Your task to perform on an android device: Search for 'The Girl on the Train' on Goodreads. Image 0: 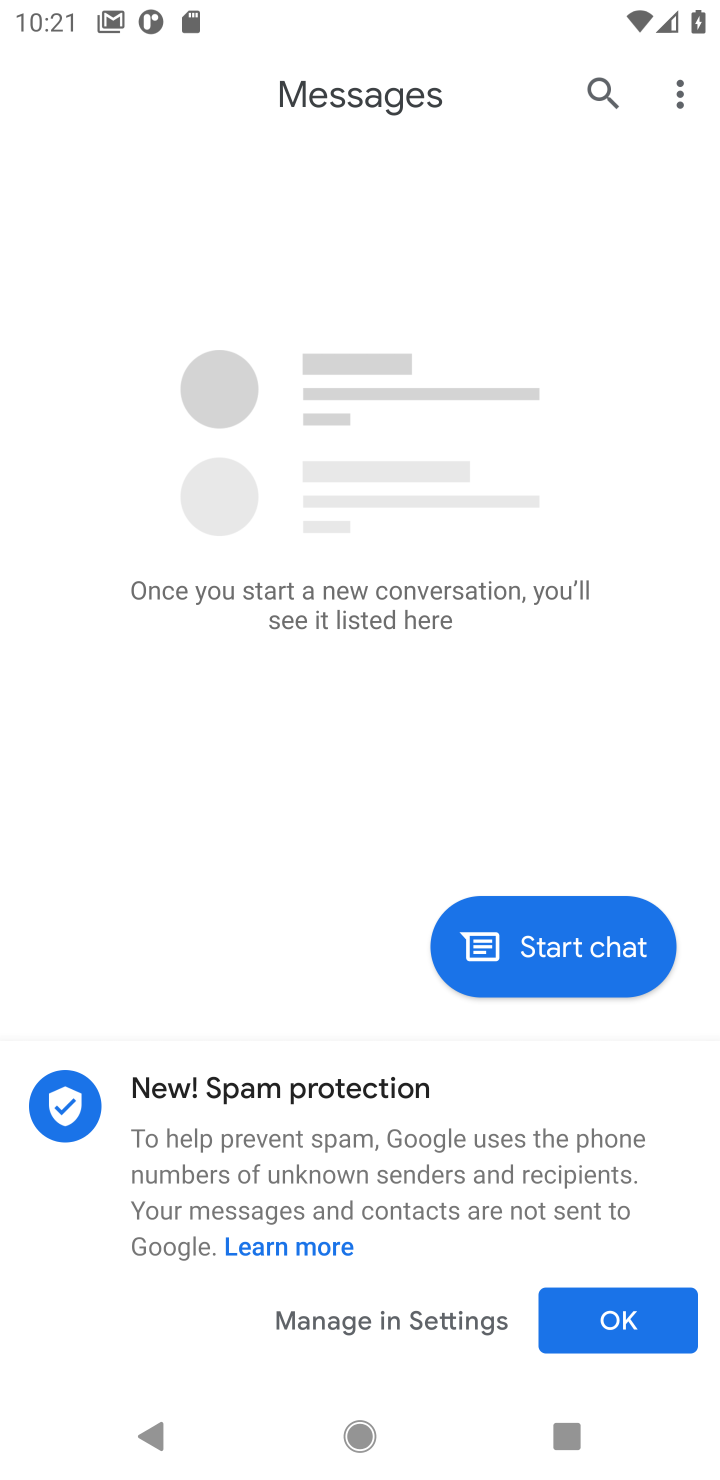
Step 0: press home button
Your task to perform on an android device: Search for 'The Girl on the Train' on Goodreads. Image 1: 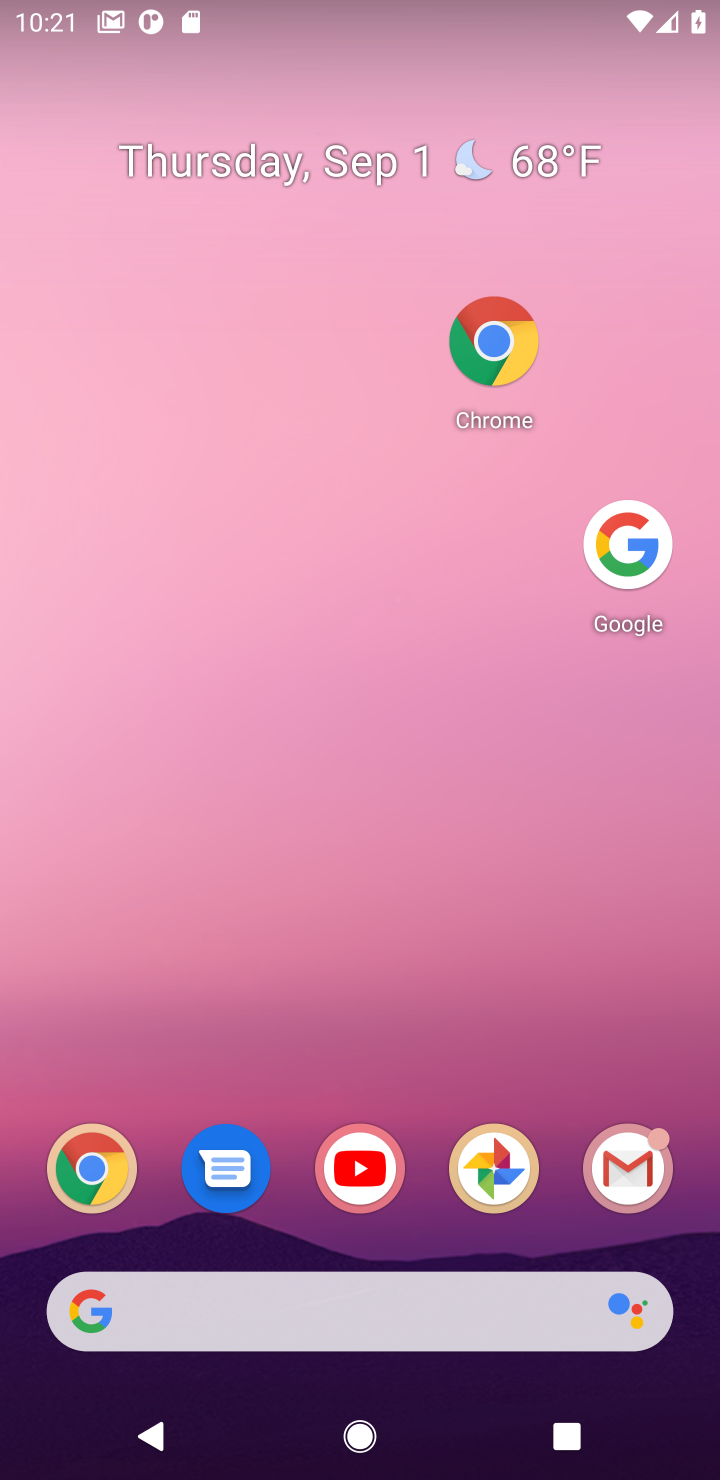
Step 1: drag from (359, 1129) to (394, 110)
Your task to perform on an android device: Search for 'The Girl on the Train' on Goodreads. Image 2: 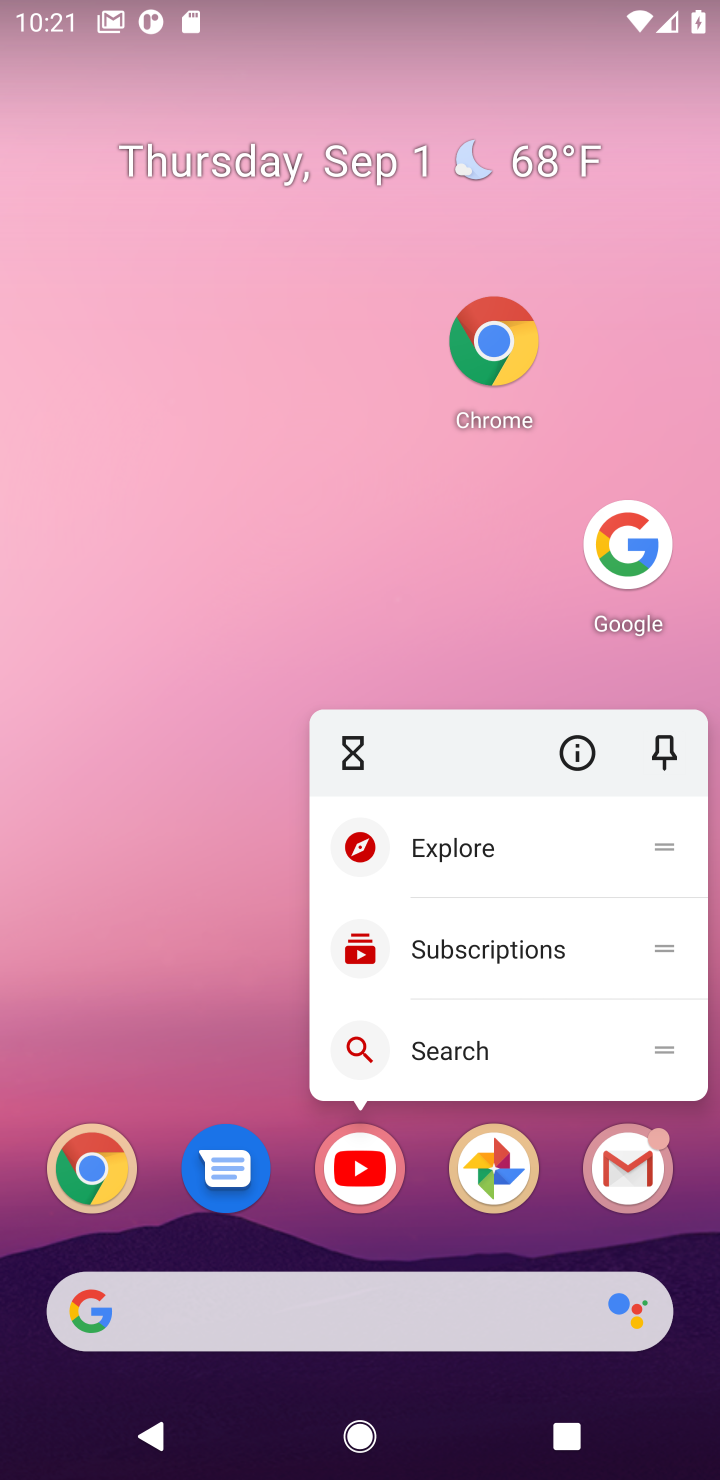
Step 2: click (216, 643)
Your task to perform on an android device: Search for 'The Girl on the Train' on Goodreads. Image 3: 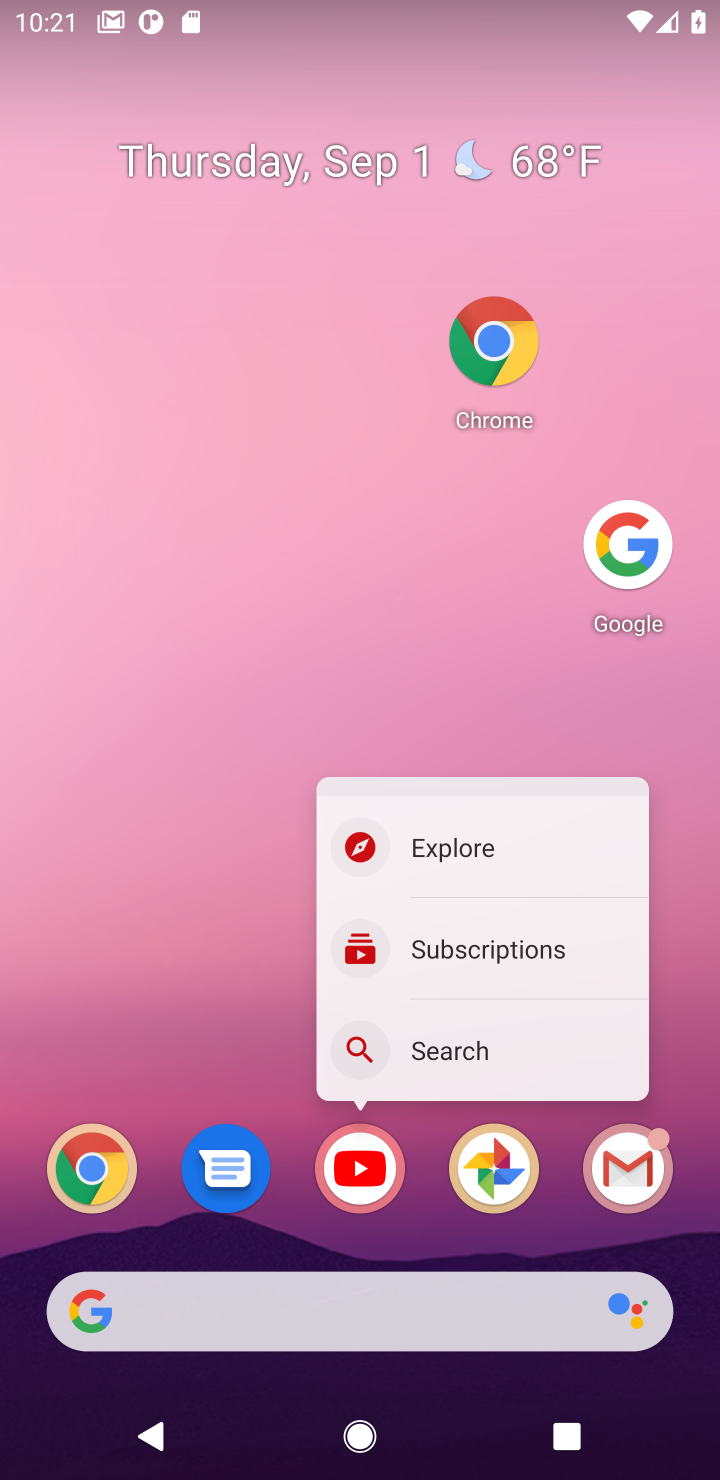
Step 3: click (620, 530)
Your task to perform on an android device: Search for 'The Girl on the Train' on Goodreads. Image 4: 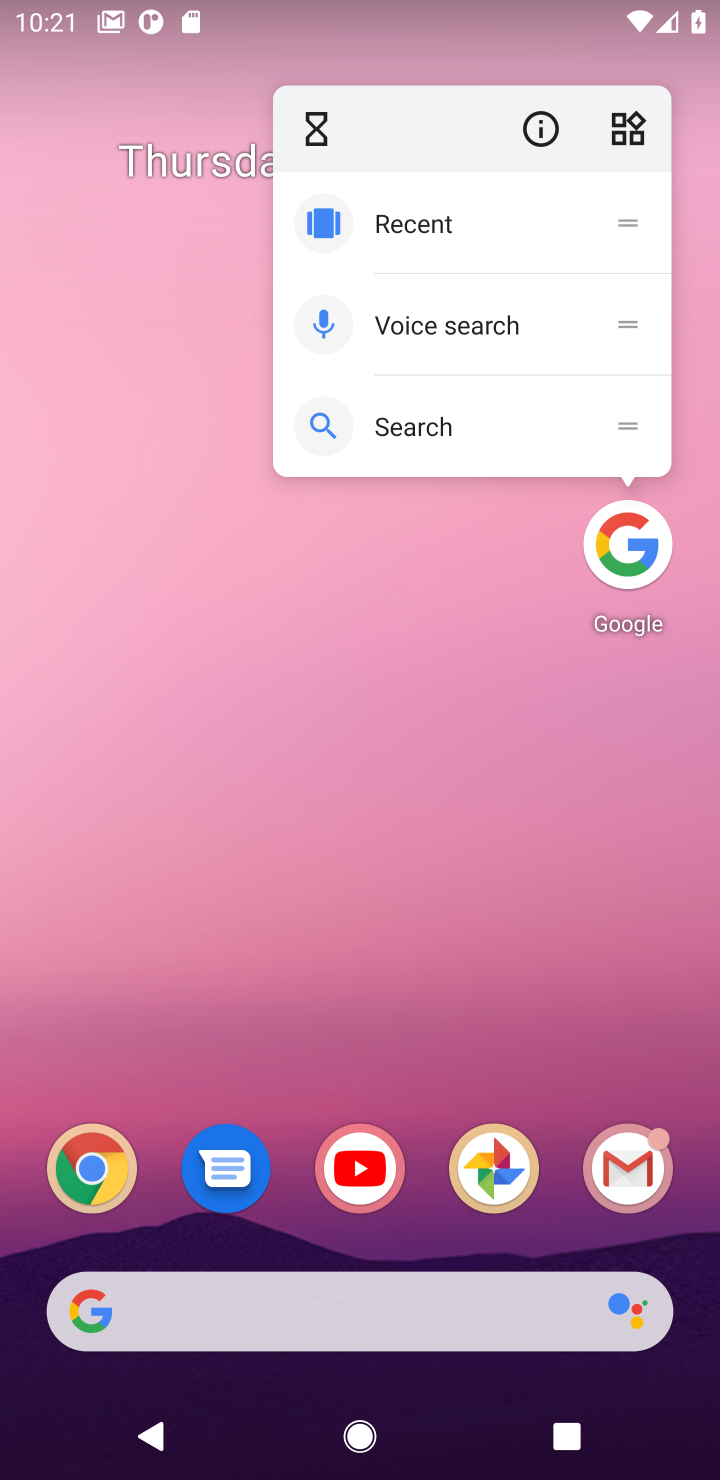
Step 4: click (629, 528)
Your task to perform on an android device: Search for 'The Girl on the Train' on Goodreads. Image 5: 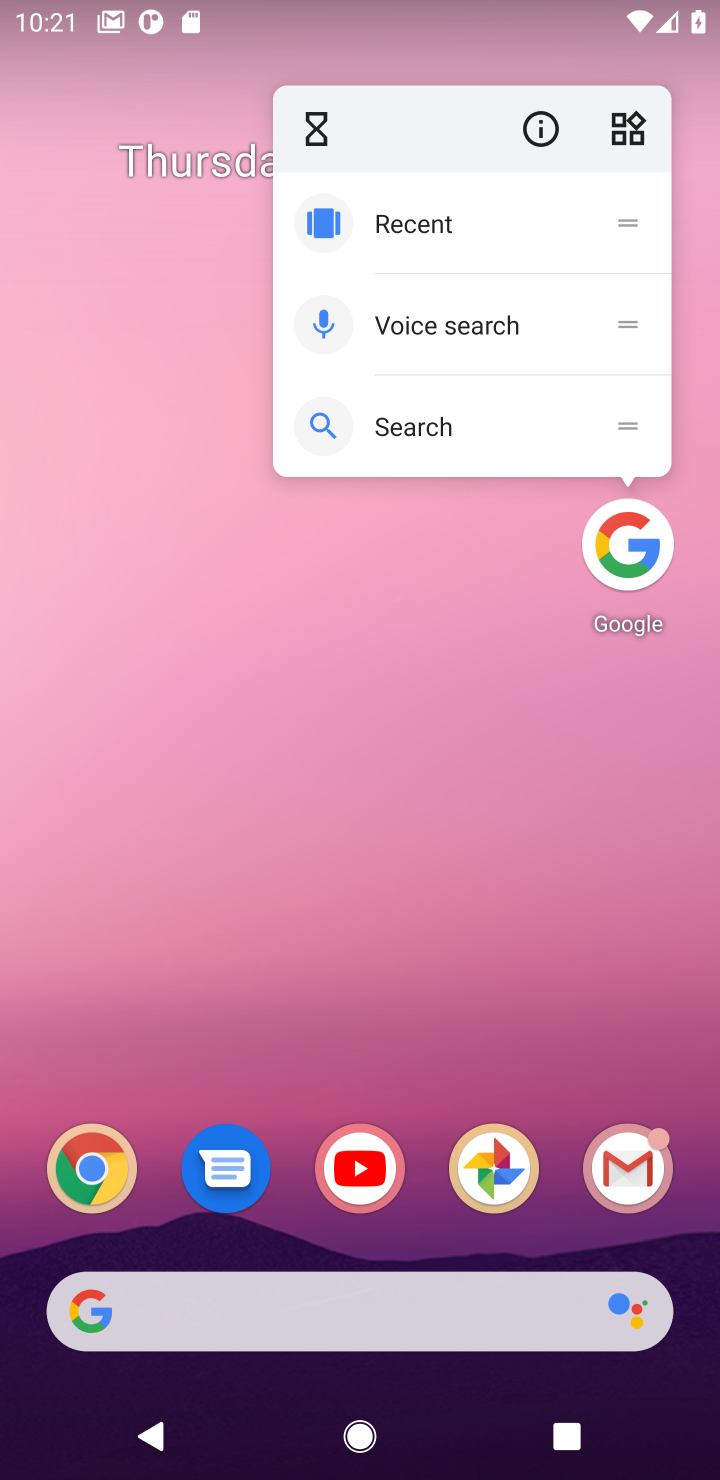
Step 5: click (629, 535)
Your task to perform on an android device: Search for 'The Girl on the Train' on Goodreads. Image 6: 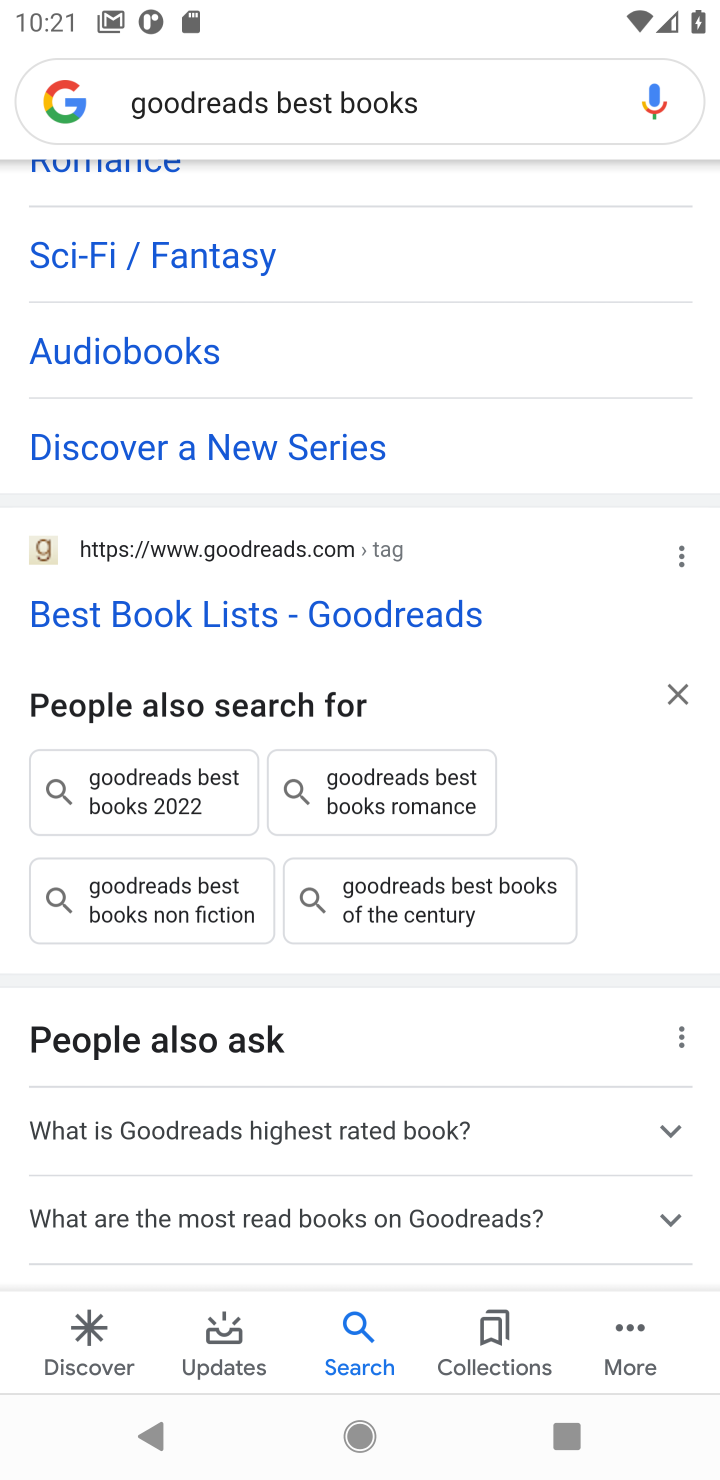
Step 6: click (431, 98)
Your task to perform on an android device: Search for 'The Girl on the Train' on Goodreads. Image 7: 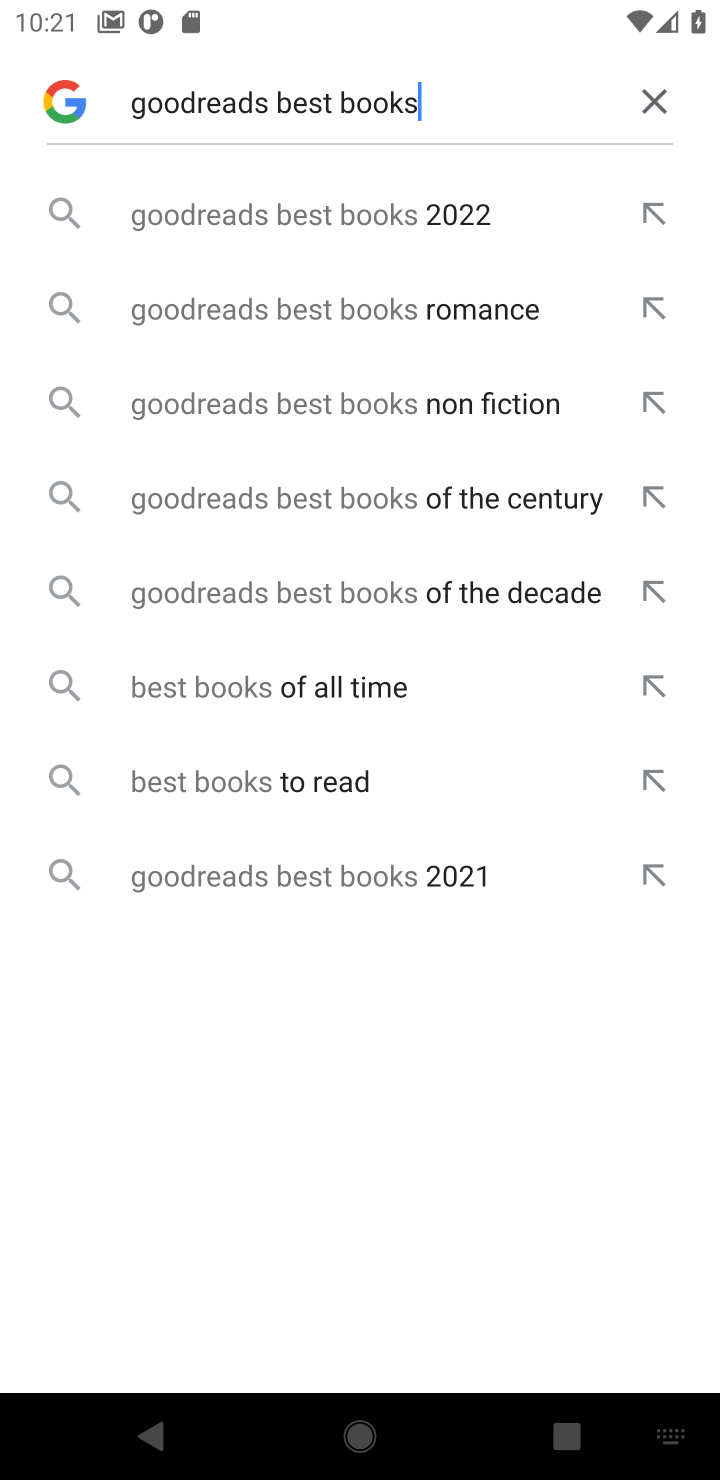
Step 7: drag from (283, 96) to (409, 111)
Your task to perform on an android device: Search for 'The Girl on the Train' on Goodreads. Image 8: 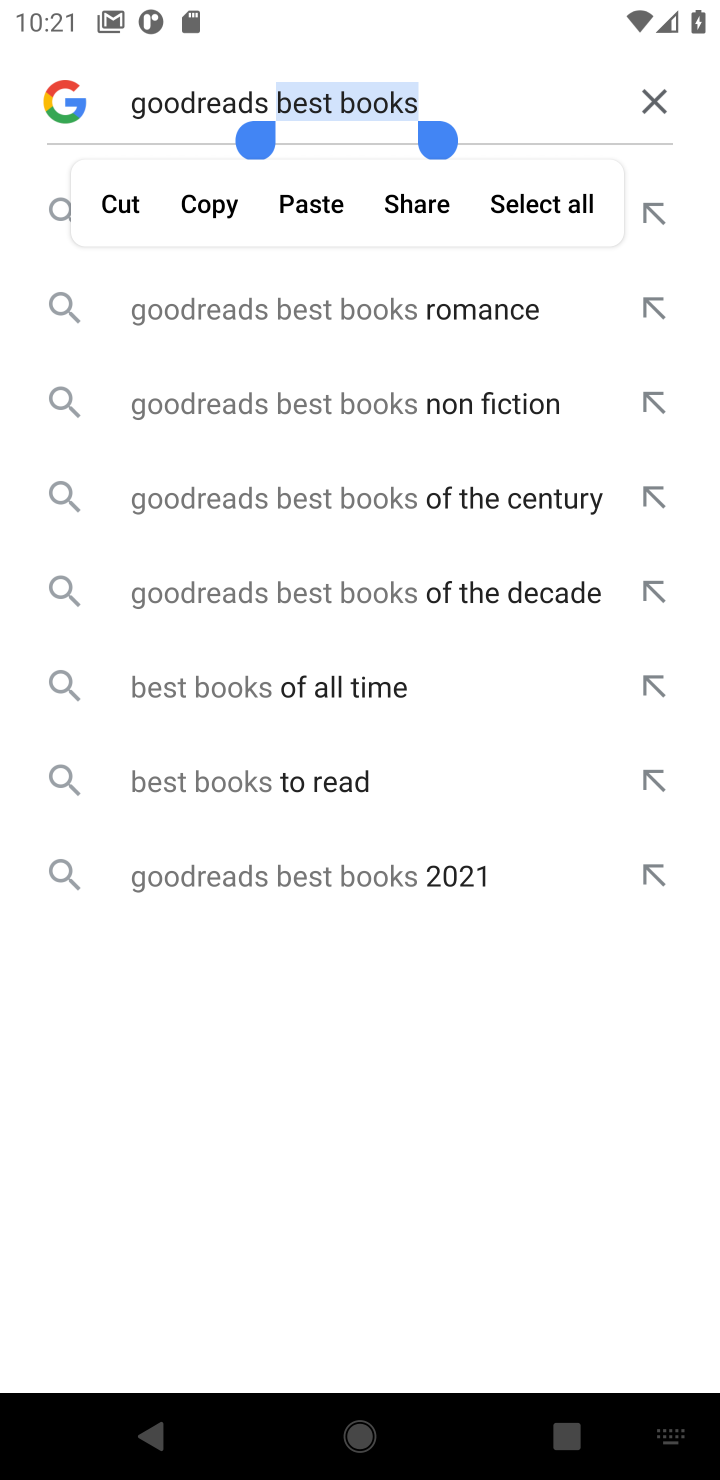
Step 8: click (125, 193)
Your task to perform on an android device: Search for 'The Girl on the Train' on Goodreads. Image 9: 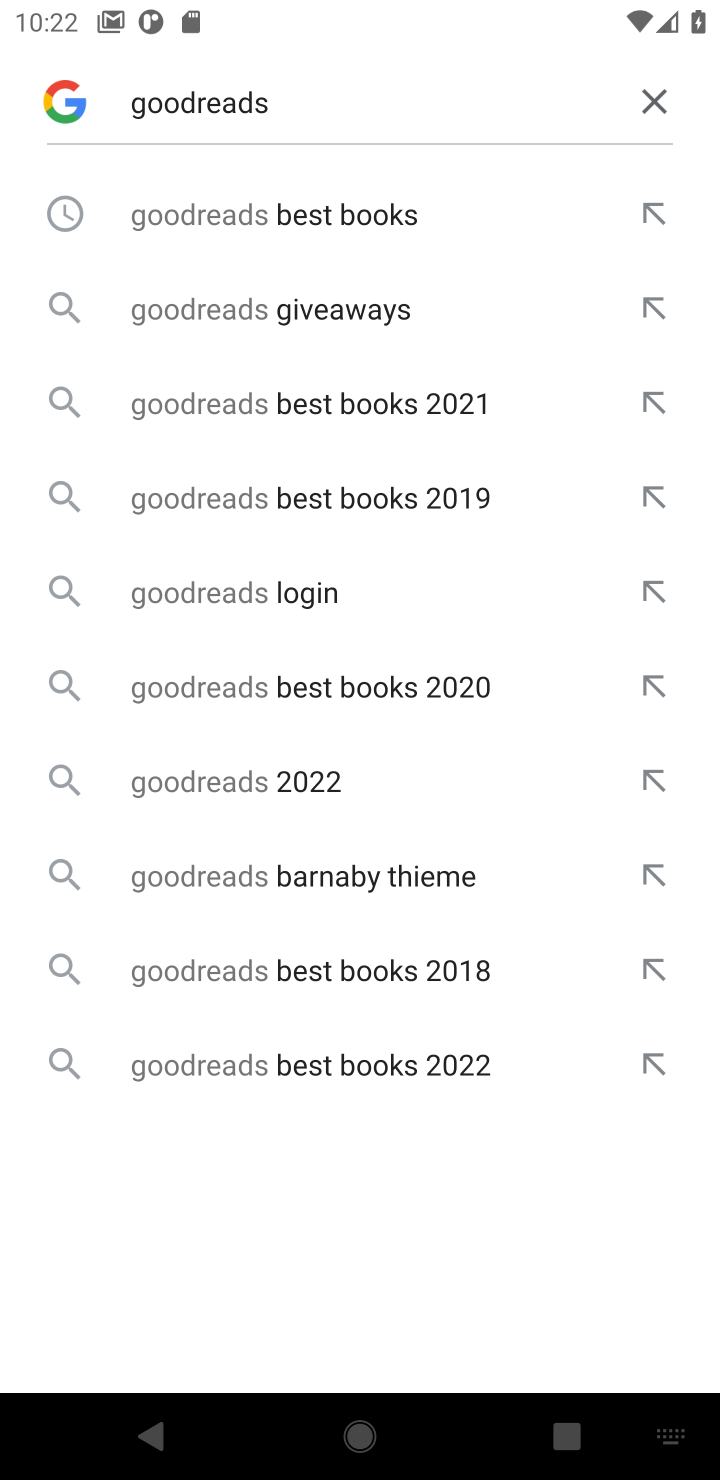
Step 9: click (194, 98)
Your task to perform on an android device: Search for 'The Girl on the Train' on Goodreads. Image 10: 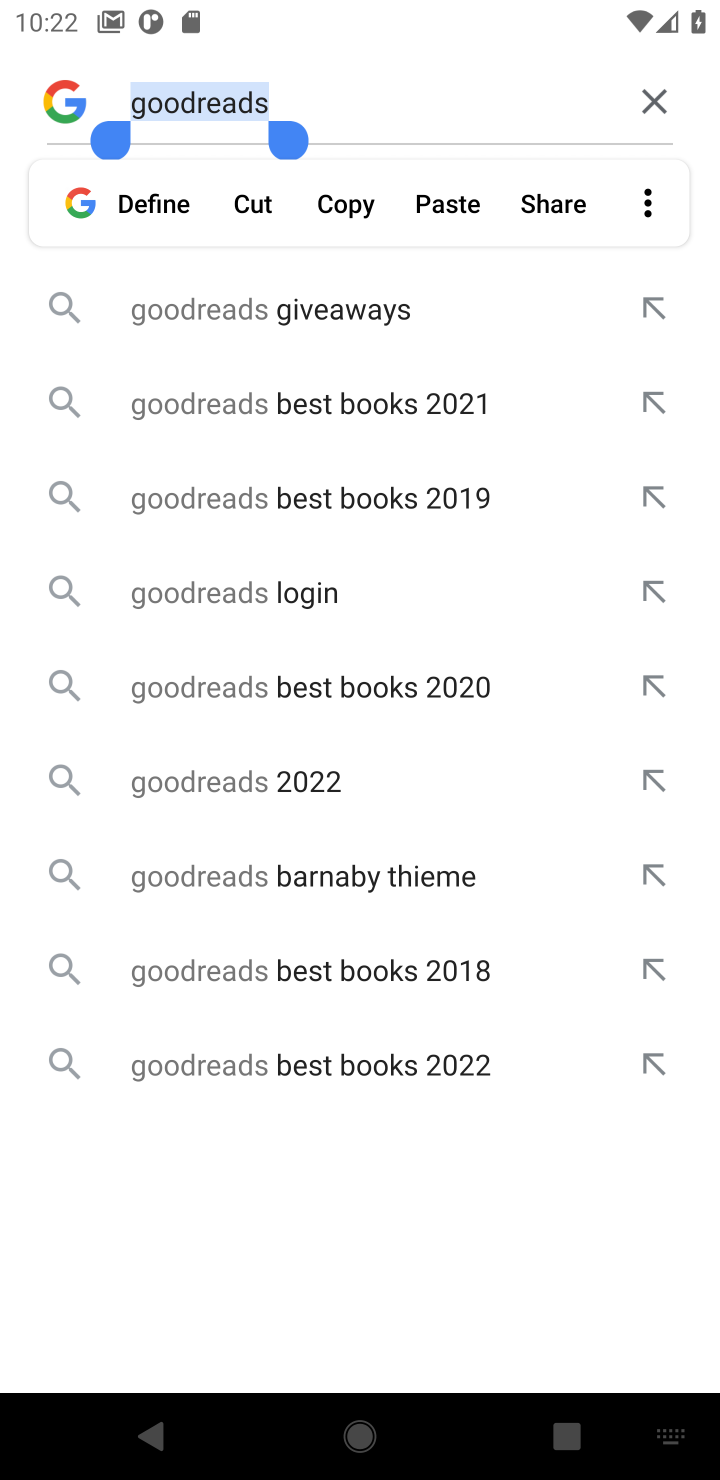
Step 10: click (239, 320)
Your task to perform on an android device: Search for 'The Girl on the Train' on Goodreads. Image 11: 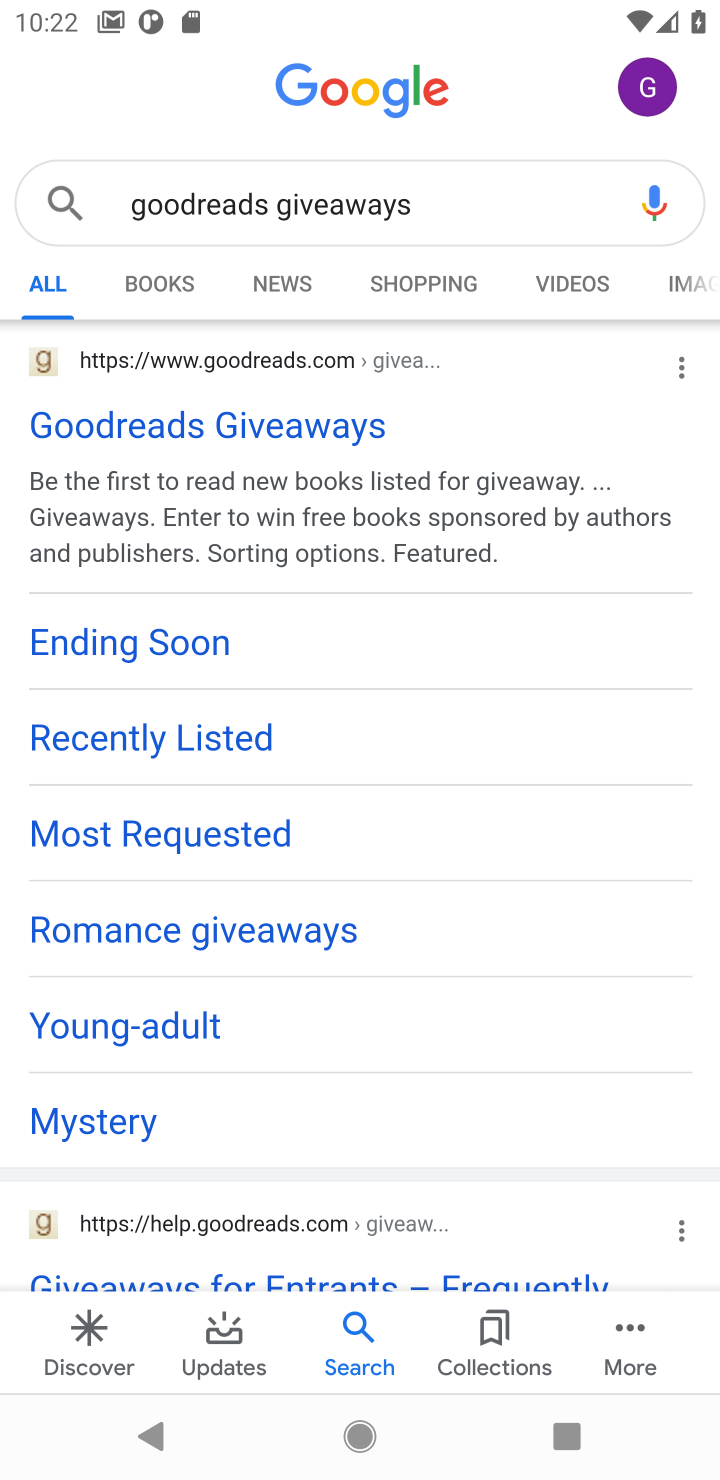
Step 11: click (252, 424)
Your task to perform on an android device: Search for 'The Girl on the Train' on Goodreads. Image 12: 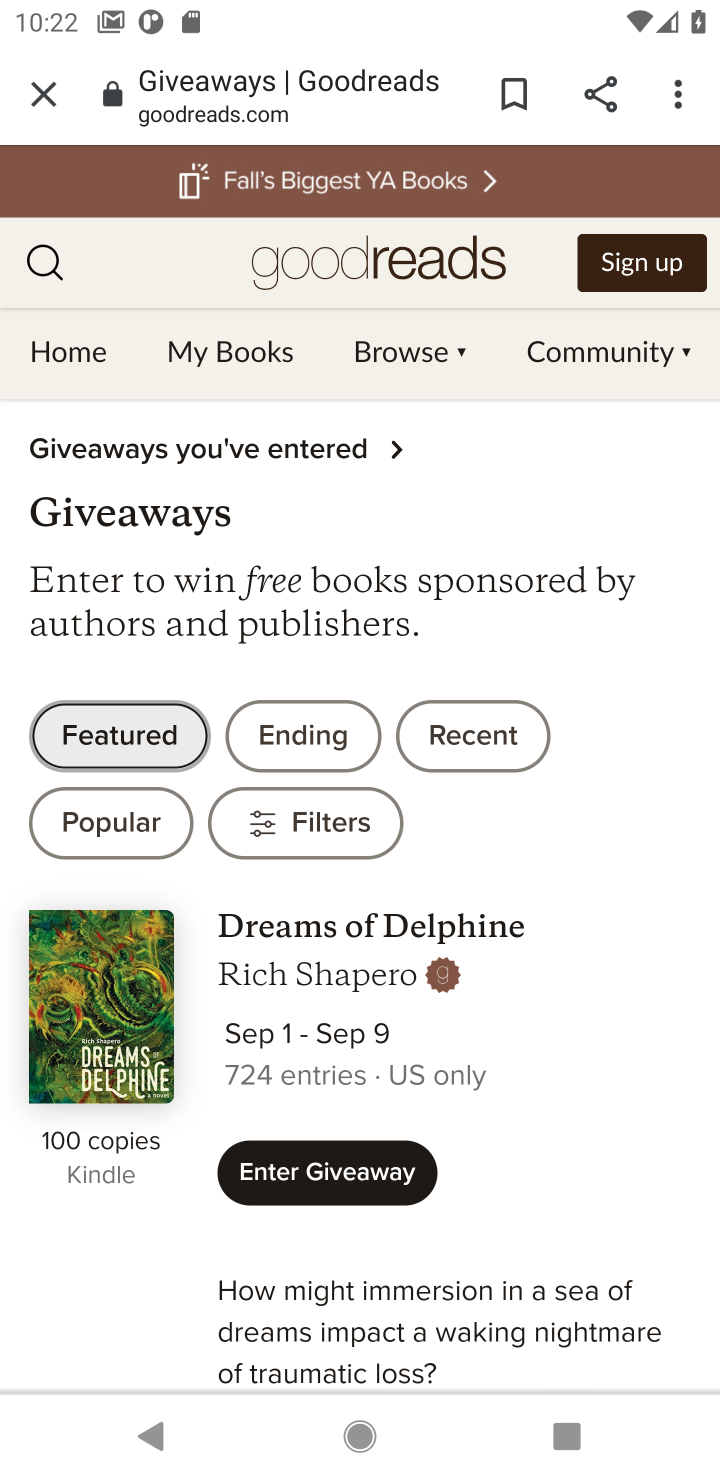
Step 12: click (44, 248)
Your task to perform on an android device: Search for 'The Girl on the Train' on Goodreads. Image 13: 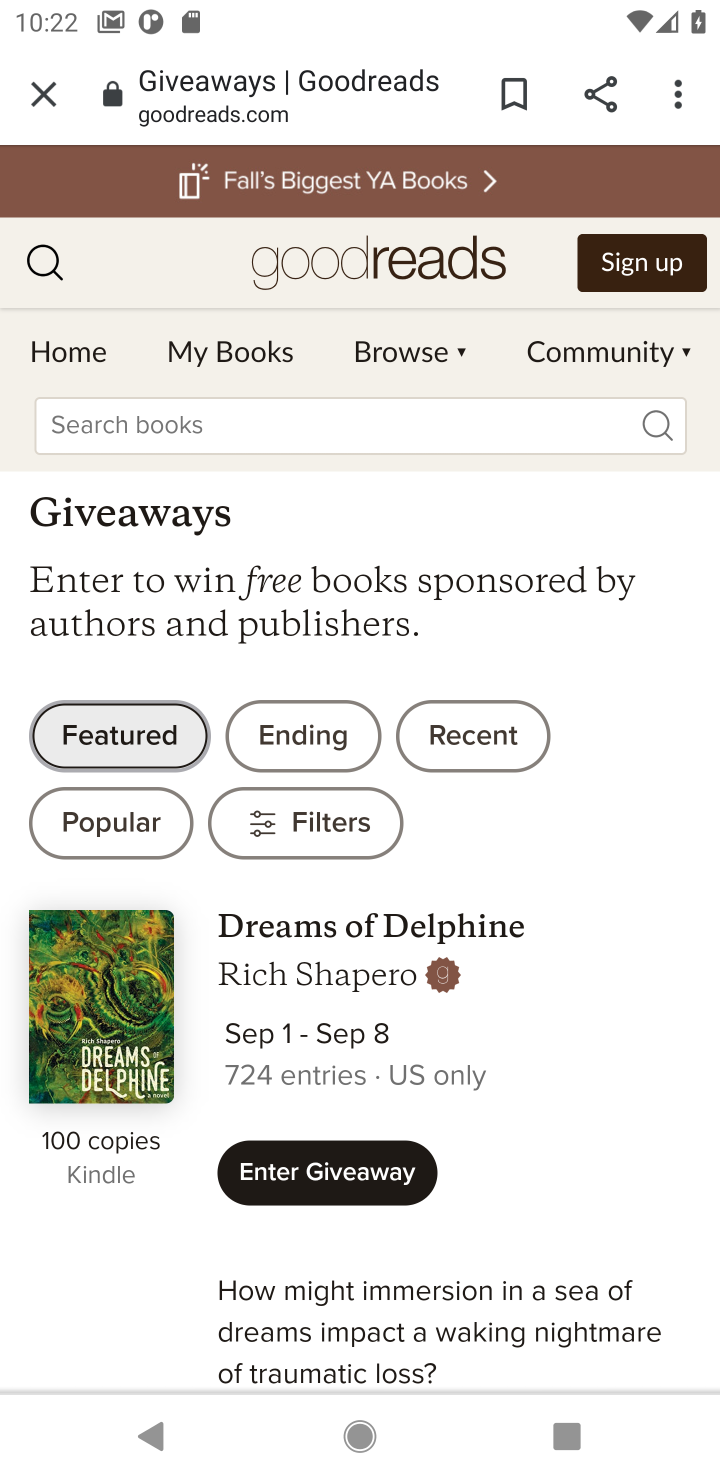
Step 13: click (252, 414)
Your task to perform on an android device: Search for 'The Girl on the Train' on Goodreads. Image 14: 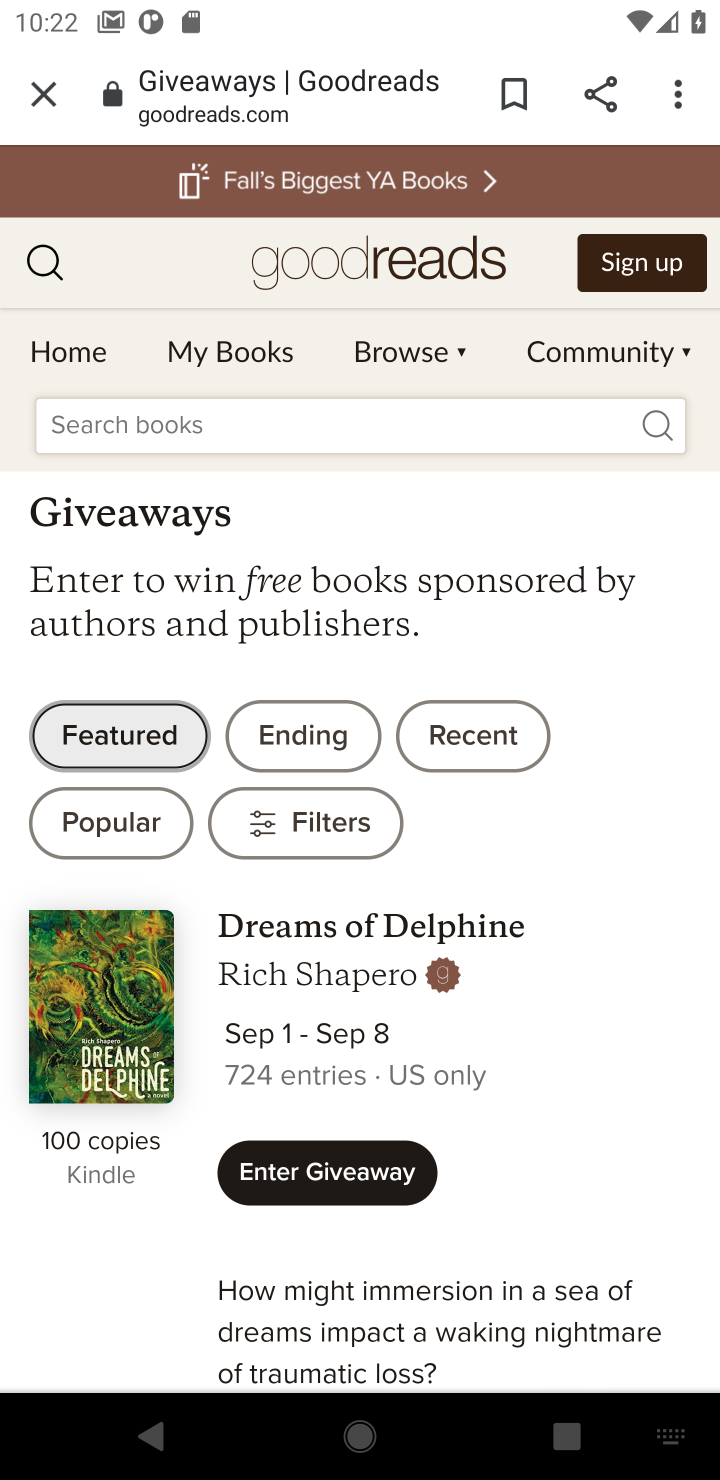
Step 14: click (323, 417)
Your task to perform on an android device: Search for 'The Girl on the Train' on Goodreads. Image 15: 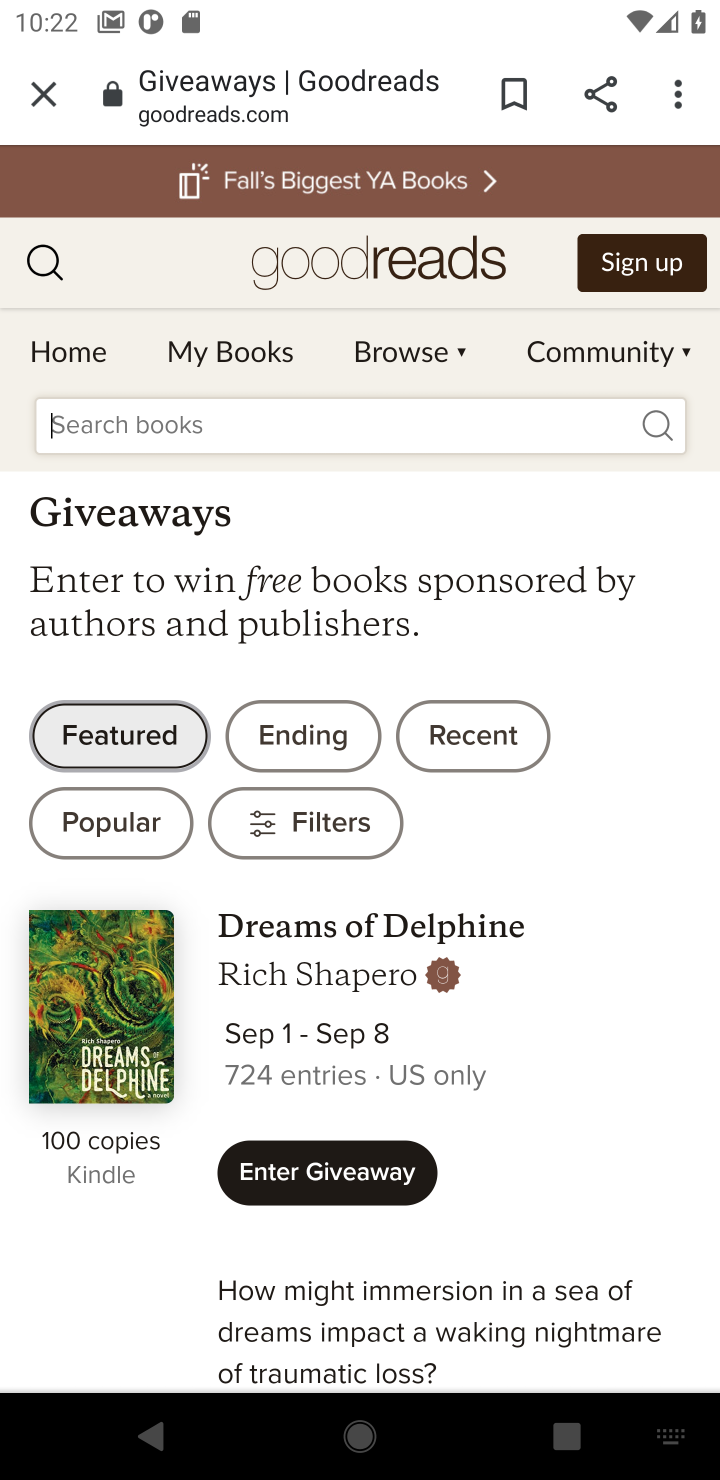
Step 15: type "The Girl on the Train "
Your task to perform on an android device: Search for 'The Girl on the Train' on Goodreads. Image 16: 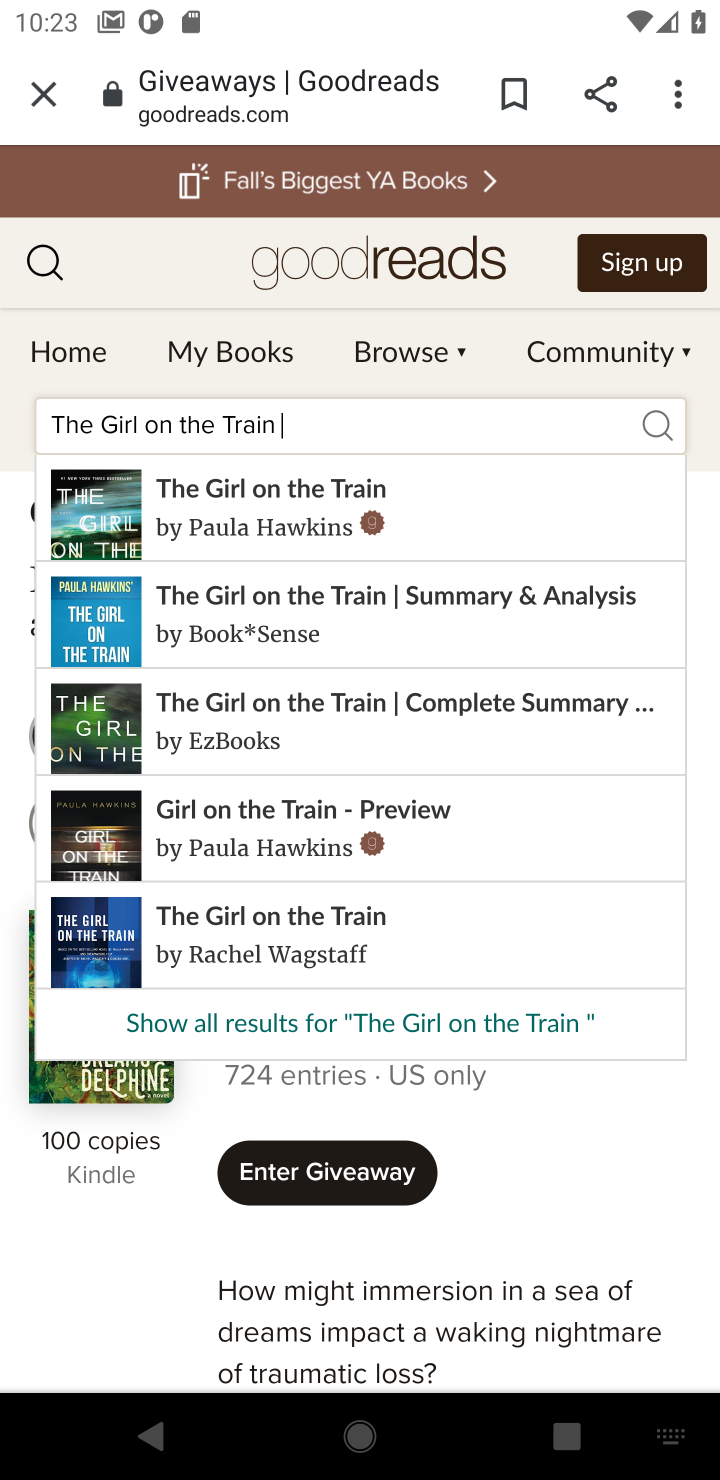
Step 16: click (319, 486)
Your task to perform on an android device: Search for 'The Girl on the Train' on Goodreads. Image 17: 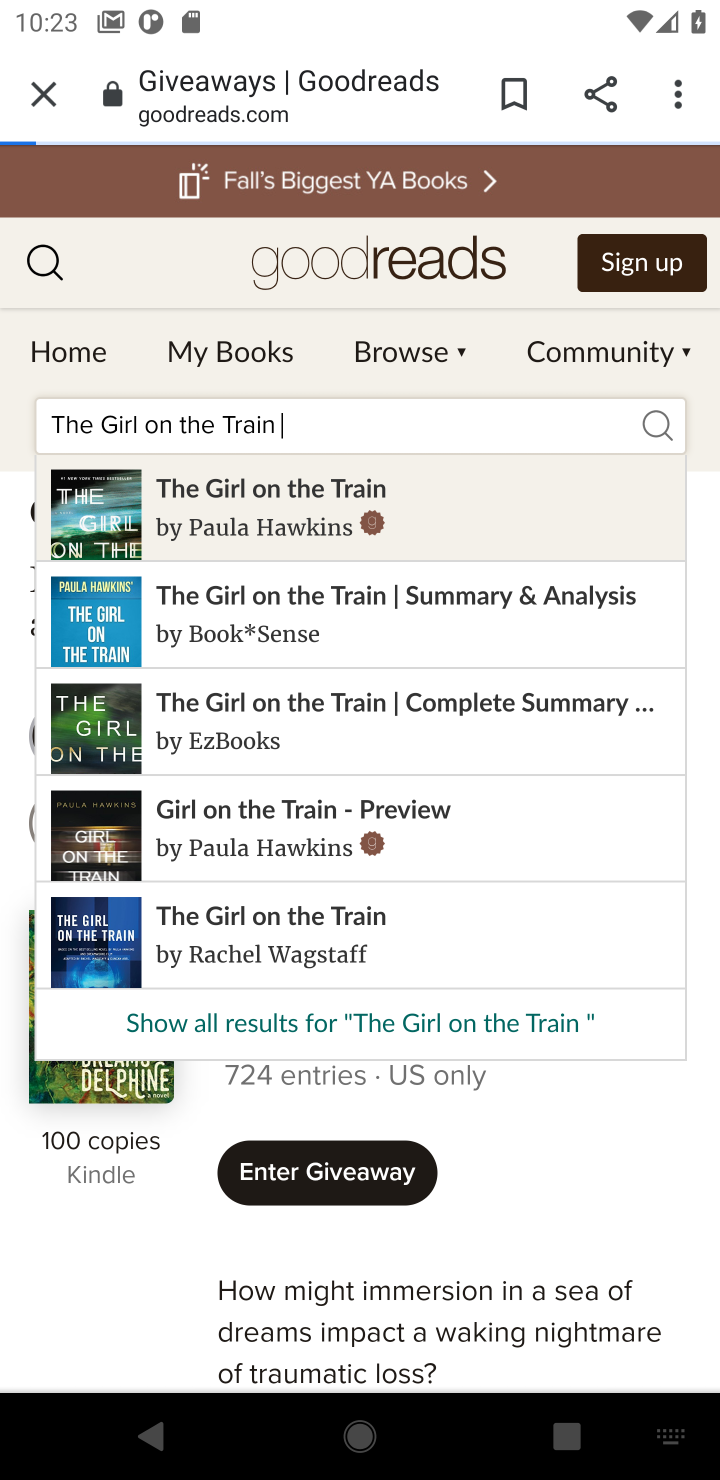
Step 17: click (287, 505)
Your task to perform on an android device: Search for 'The Girl on the Train' on Goodreads. Image 18: 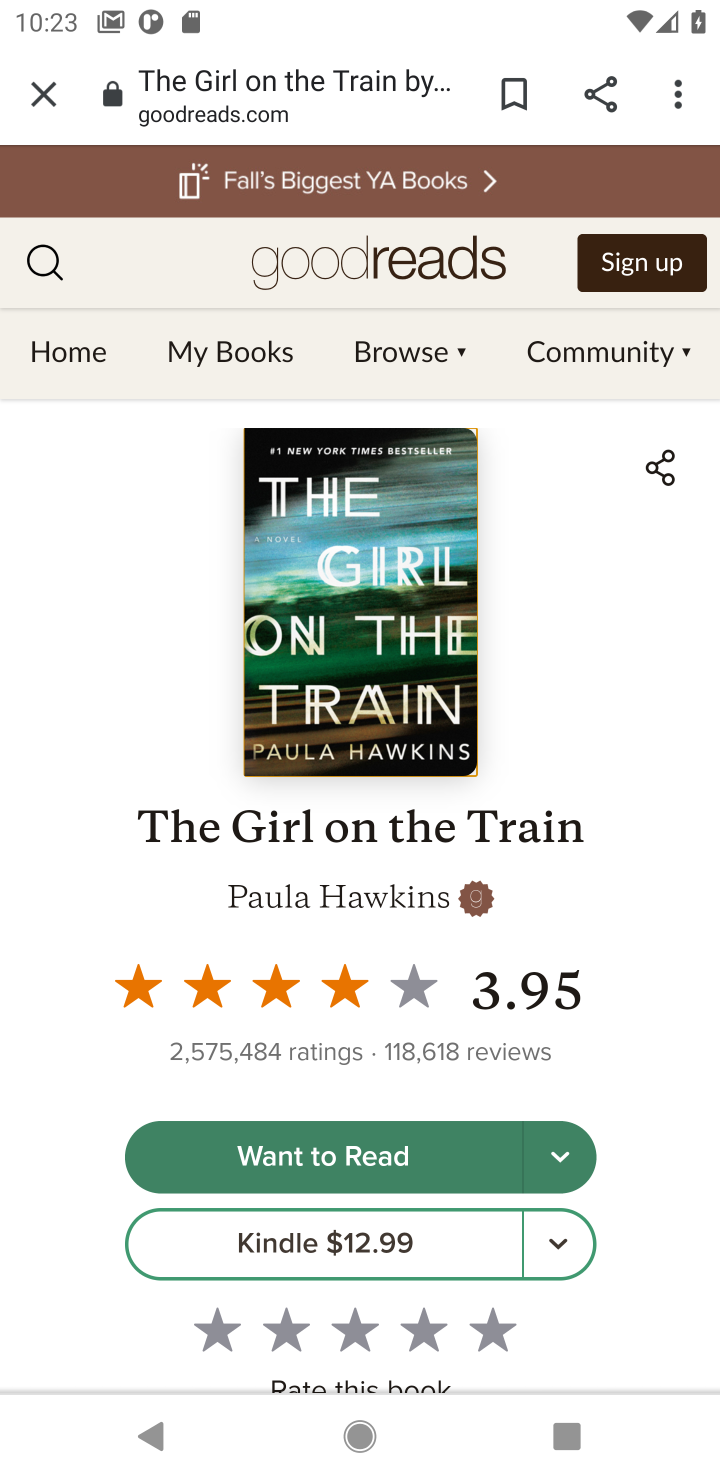
Step 18: task complete